Your task to perform on an android device: turn on translation in the chrome app Image 0: 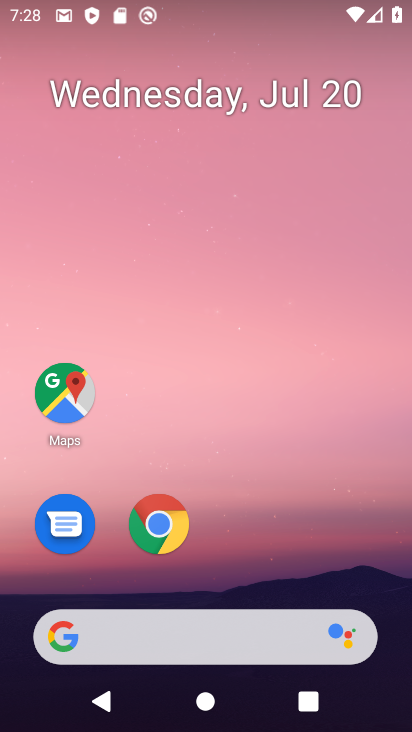
Step 0: click (152, 526)
Your task to perform on an android device: turn on translation in the chrome app Image 1: 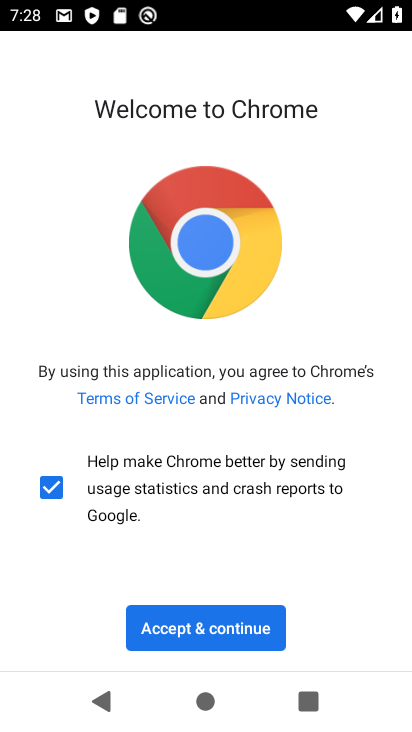
Step 1: click (145, 632)
Your task to perform on an android device: turn on translation in the chrome app Image 2: 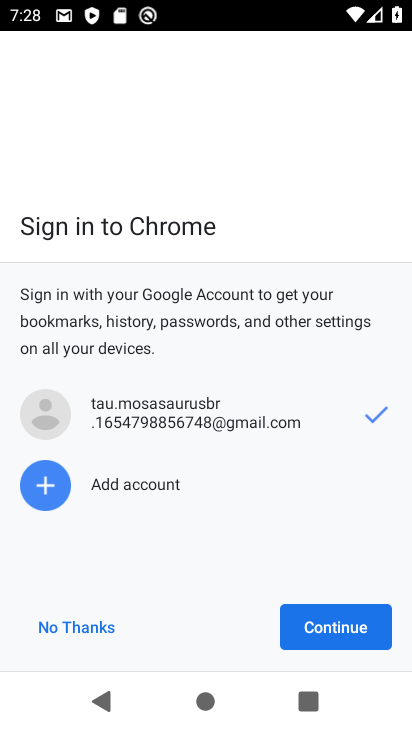
Step 2: click (315, 630)
Your task to perform on an android device: turn on translation in the chrome app Image 3: 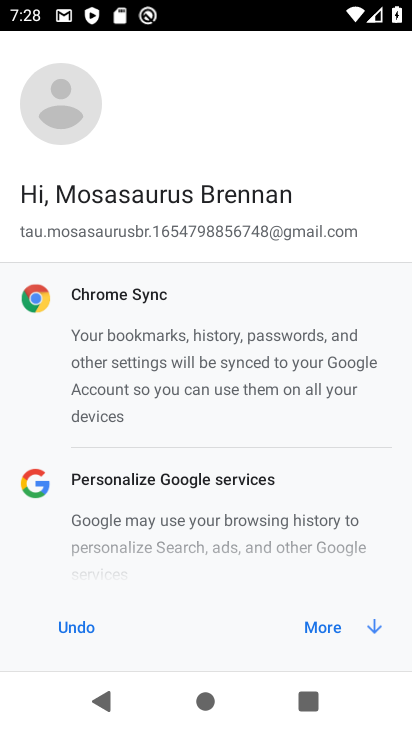
Step 3: click (312, 630)
Your task to perform on an android device: turn on translation in the chrome app Image 4: 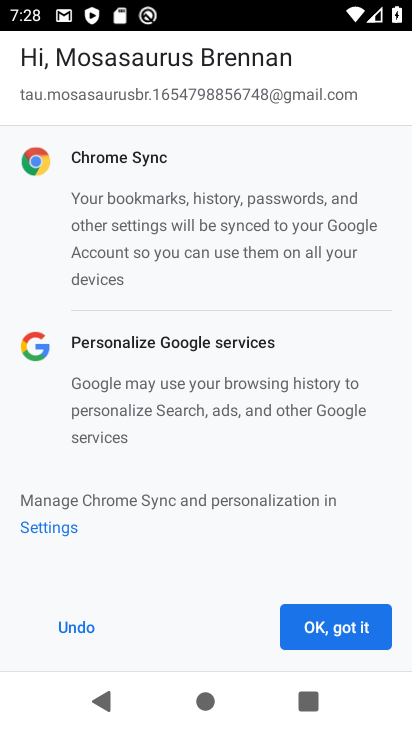
Step 4: click (312, 630)
Your task to perform on an android device: turn on translation in the chrome app Image 5: 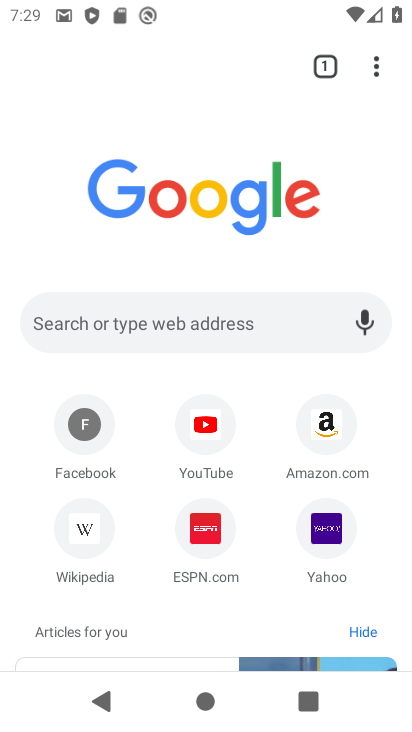
Step 5: drag from (372, 67) to (176, 553)
Your task to perform on an android device: turn on translation in the chrome app Image 6: 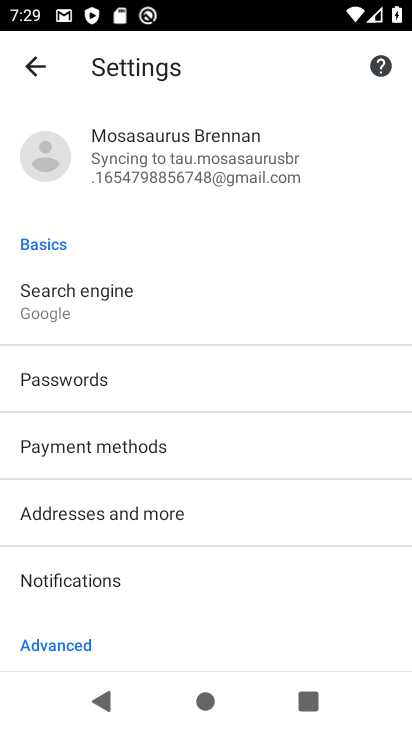
Step 6: drag from (169, 595) to (268, 129)
Your task to perform on an android device: turn on translation in the chrome app Image 7: 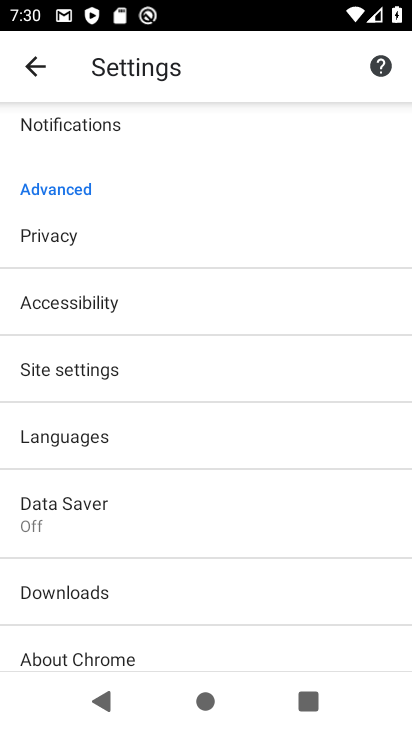
Step 7: click (94, 438)
Your task to perform on an android device: turn on translation in the chrome app Image 8: 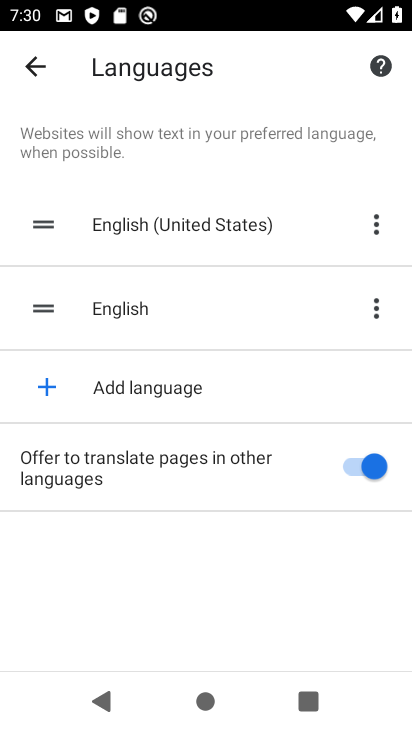
Step 8: task complete